Your task to perform on an android device: Open ESPN.com Image 0: 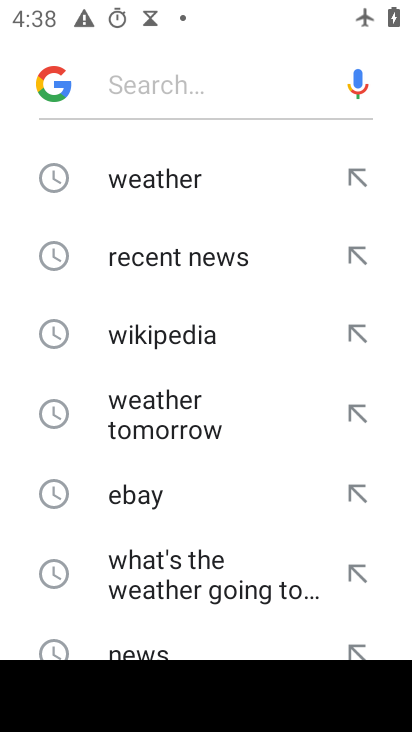
Step 0: press back button
Your task to perform on an android device: Open ESPN.com Image 1: 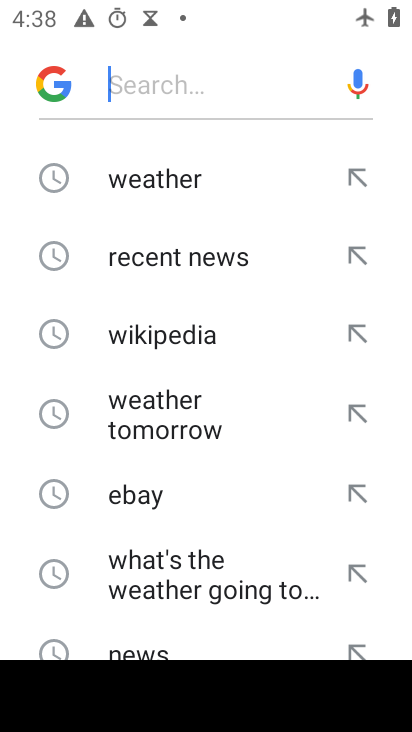
Step 1: press back button
Your task to perform on an android device: Open ESPN.com Image 2: 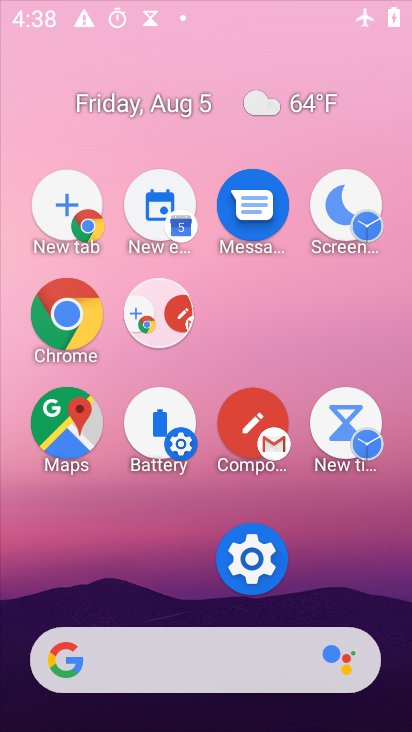
Step 2: press back button
Your task to perform on an android device: Open ESPN.com Image 3: 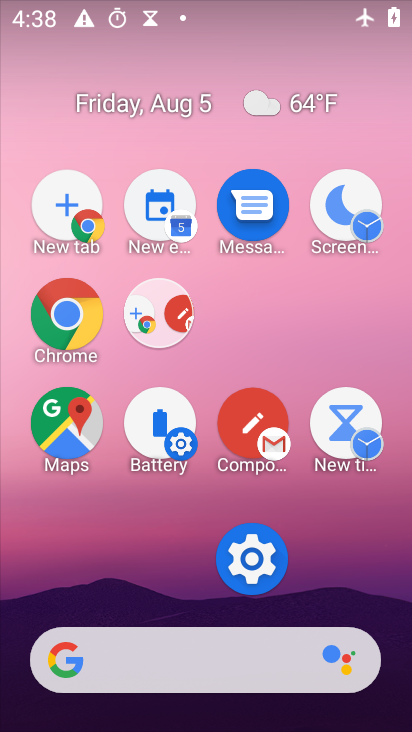
Step 3: press back button
Your task to perform on an android device: Open ESPN.com Image 4: 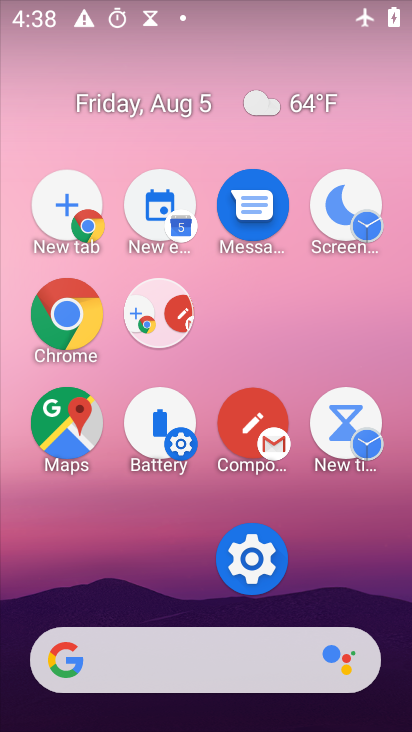
Step 4: click (253, 552)
Your task to perform on an android device: Open ESPN.com Image 5: 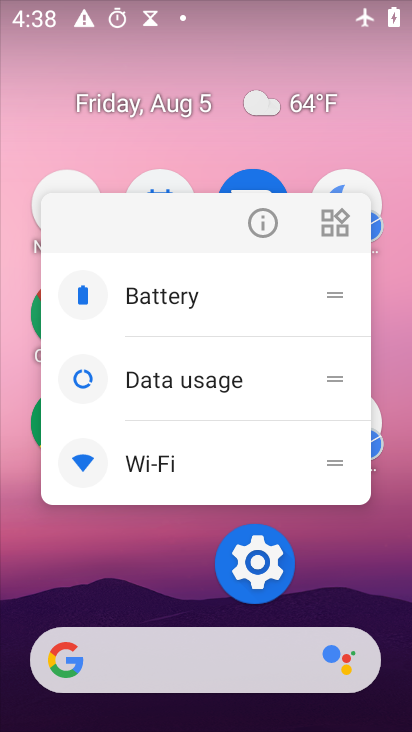
Step 5: click (256, 557)
Your task to perform on an android device: Open ESPN.com Image 6: 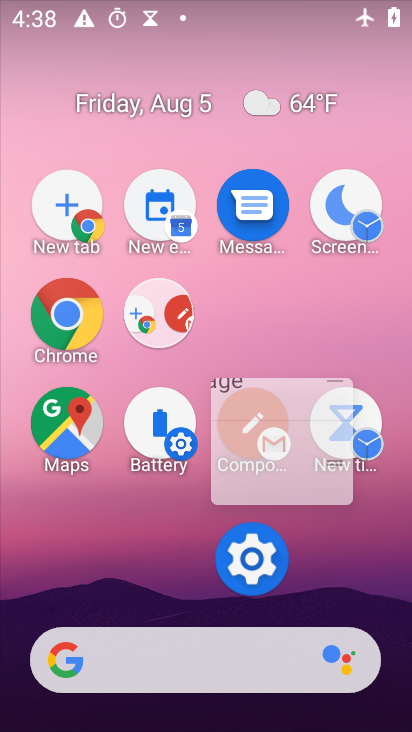
Step 6: click (255, 556)
Your task to perform on an android device: Open ESPN.com Image 7: 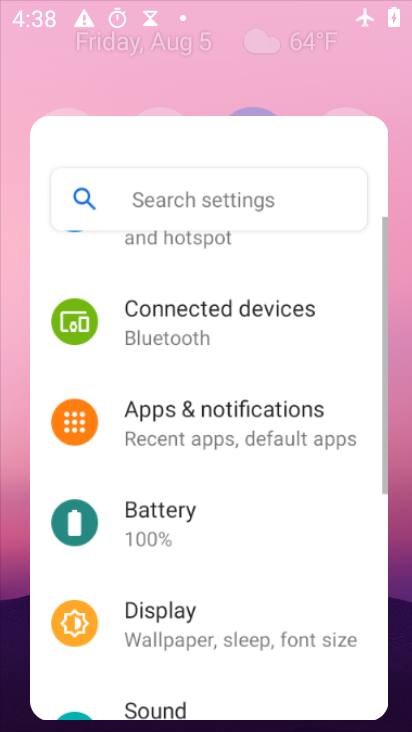
Step 7: click (258, 549)
Your task to perform on an android device: Open ESPN.com Image 8: 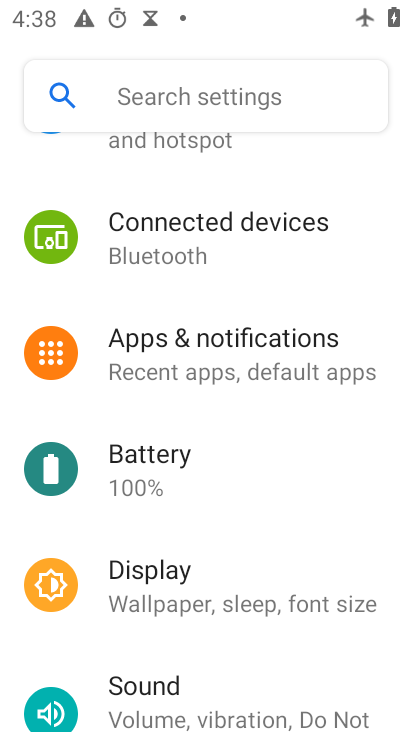
Step 8: press back button
Your task to perform on an android device: Open ESPN.com Image 9: 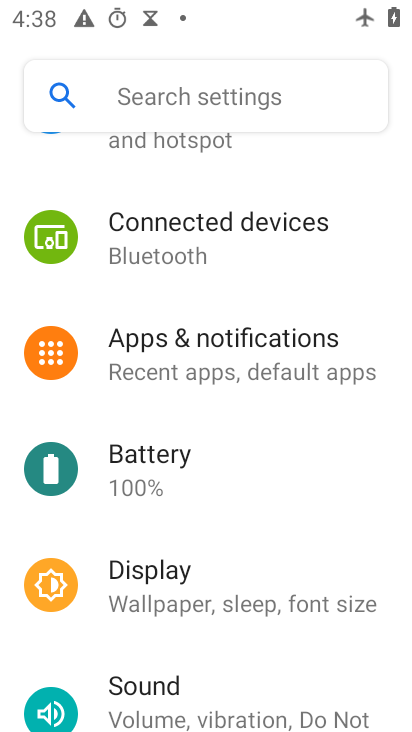
Step 9: press back button
Your task to perform on an android device: Open ESPN.com Image 10: 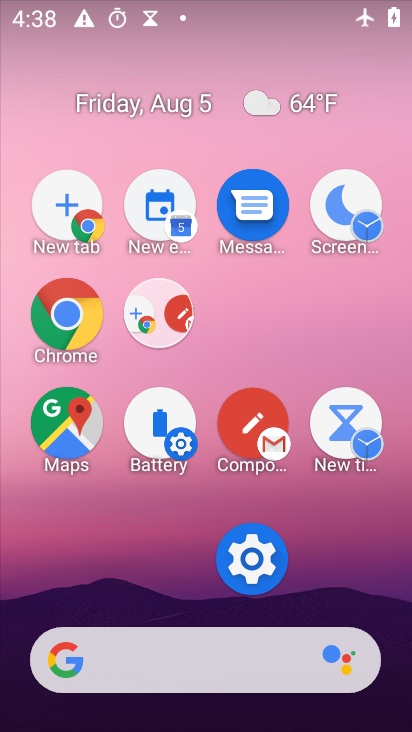
Step 10: click (52, 334)
Your task to perform on an android device: Open ESPN.com Image 11: 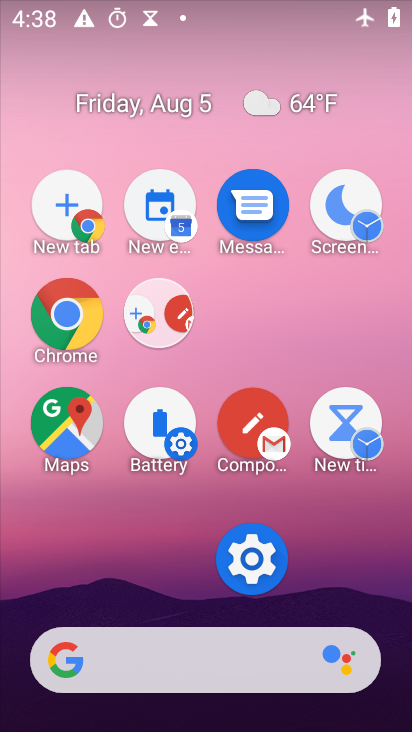
Step 11: click (54, 334)
Your task to perform on an android device: Open ESPN.com Image 12: 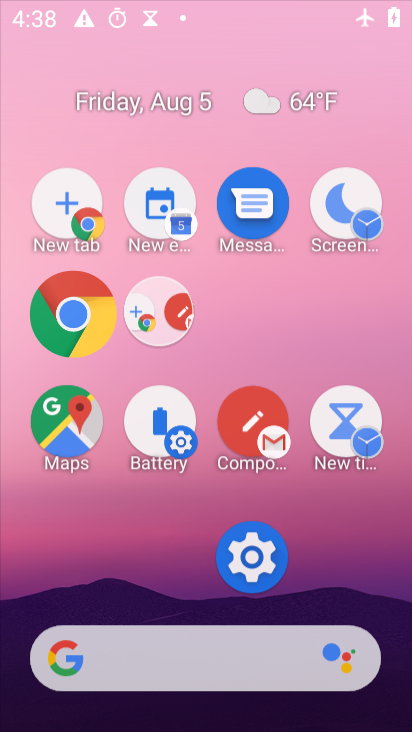
Step 12: click (55, 334)
Your task to perform on an android device: Open ESPN.com Image 13: 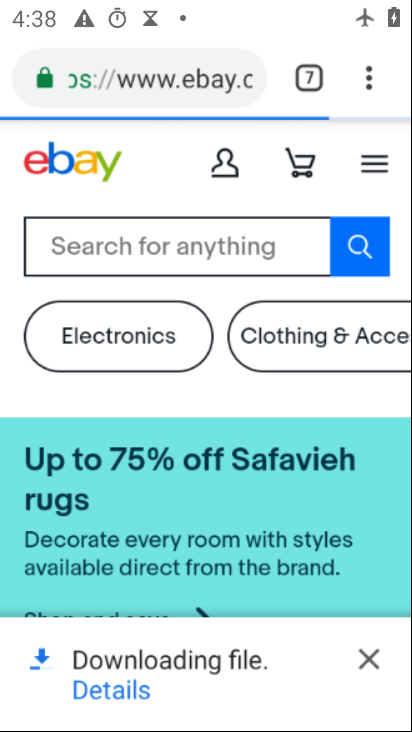
Step 13: drag from (357, 68) to (257, 141)
Your task to perform on an android device: Open ESPN.com Image 14: 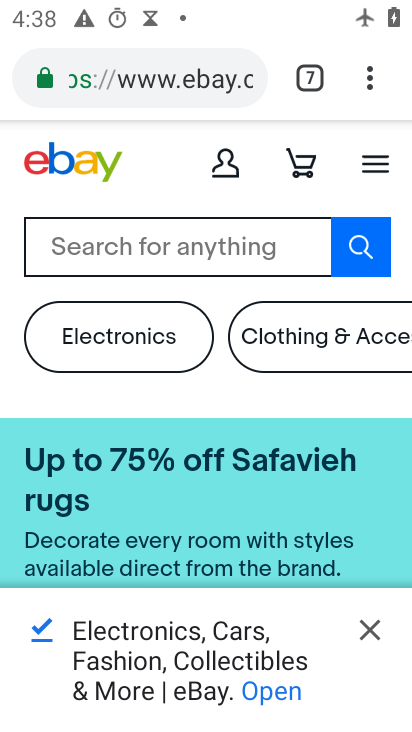
Step 14: click (366, 76)
Your task to perform on an android device: Open ESPN.com Image 15: 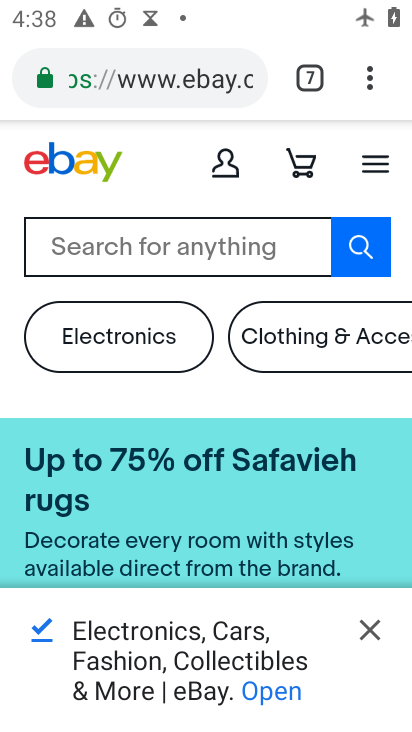
Step 15: click (366, 76)
Your task to perform on an android device: Open ESPN.com Image 16: 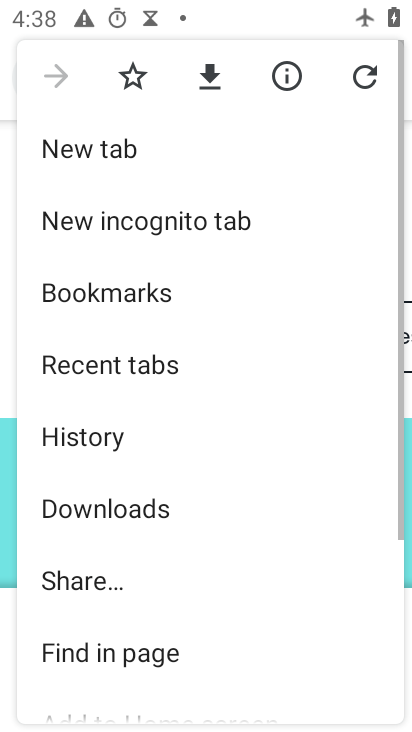
Step 16: click (357, 87)
Your task to perform on an android device: Open ESPN.com Image 17: 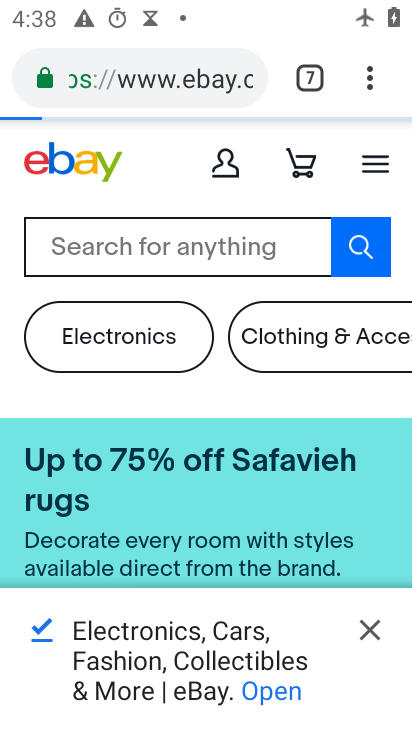
Step 17: click (93, 142)
Your task to perform on an android device: Open ESPN.com Image 18: 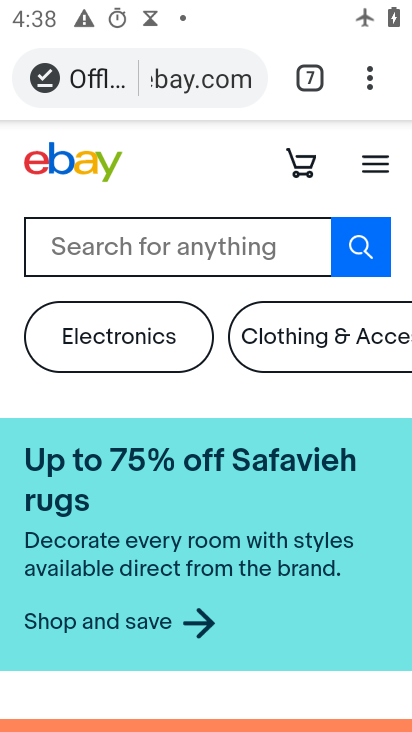
Step 18: drag from (372, 72) to (104, 143)
Your task to perform on an android device: Open ESPN.com Image 19: 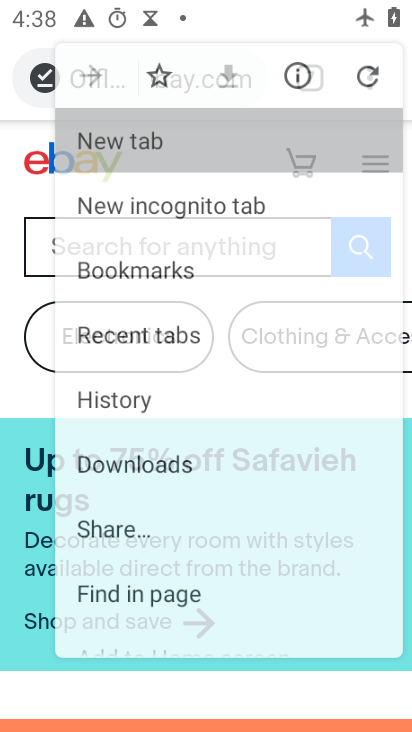
Step 19: click (103, 143)
Your task to perform on an android device: Open ESPN.com Image 20: 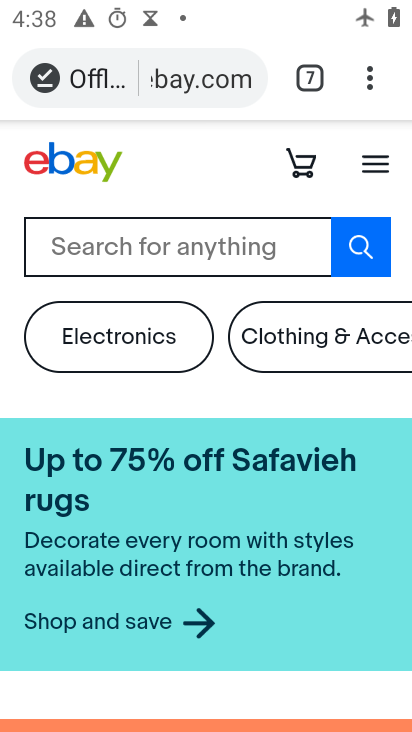
Step 20: click (103, 143)
Your task to perform on an android device: Open ESPN.com Image 21: 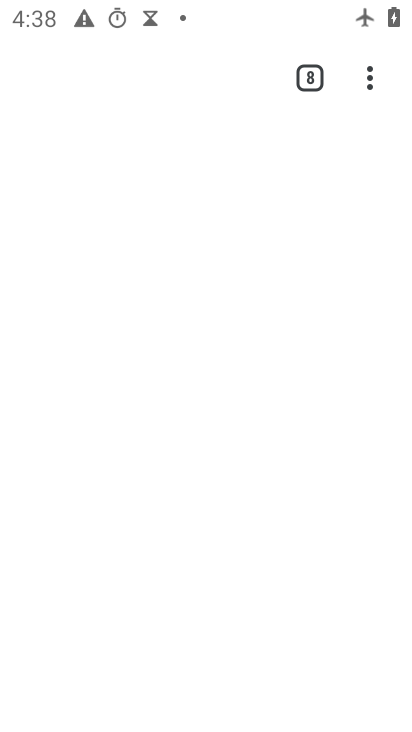
Step 21: click (103, 143)
Your task to perform on an android device: Open ESPN.com Image 22: 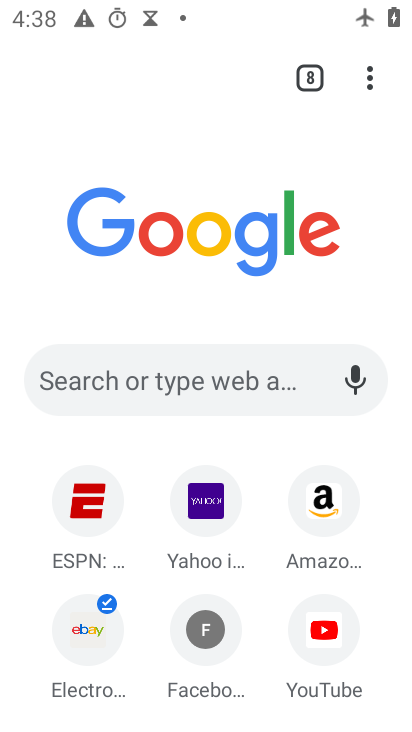
Step 22: click (100, 490)
Your task to perform on an android device: Open ESPN.com Image 23: 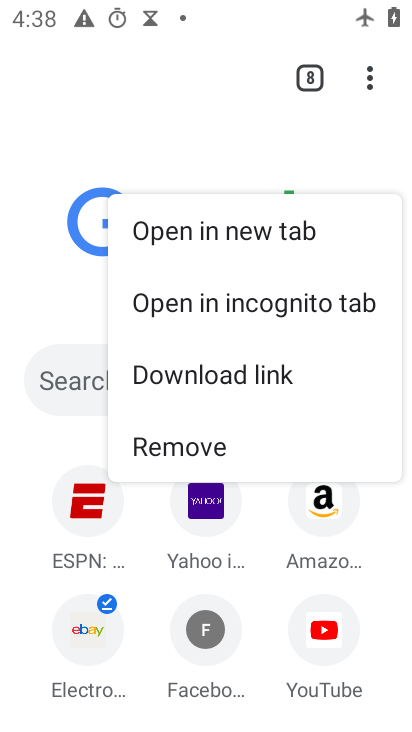
Step 23: click (89, 496)
Your task to perform on an android device: Open ESPN.com Image 24: 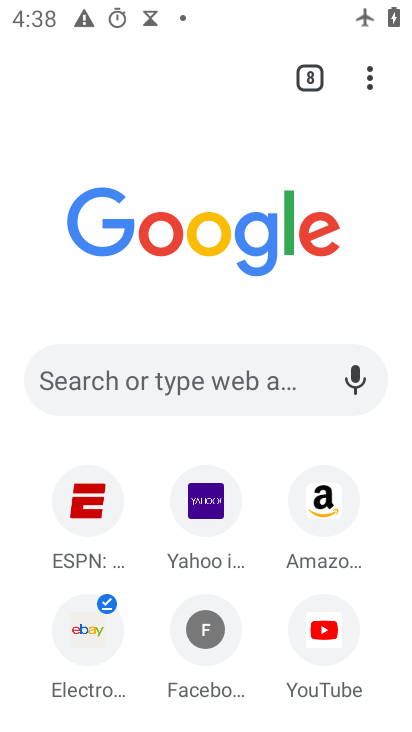
Step 24: click (82, 492)
Your task to perform on an android device: Open ESPN.com Image 25: 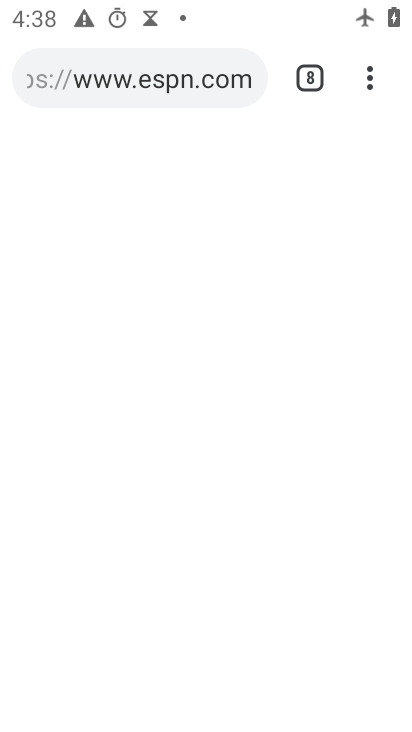
Step 25: task complete